Your task to perform on an android device: Open maps Image 0: 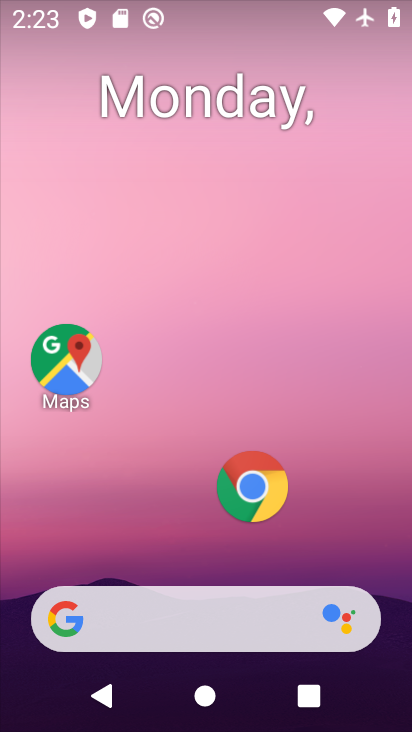
Step 0: drag from (152, 546) to (205, 1)
Your task to perform on an android device: Open maps Image 1: 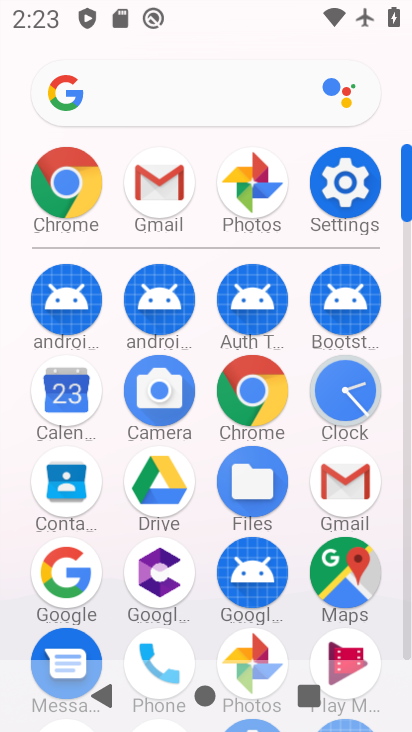
Step 1: click (345, 566)
Your task to perform on an android device: Open maps Image 2: 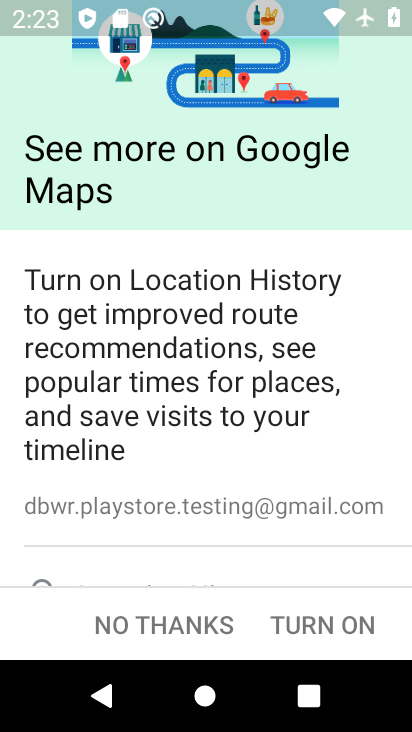
Step 2: click (212, 614)
Your task to perform on an android device: Open maps Image 3: 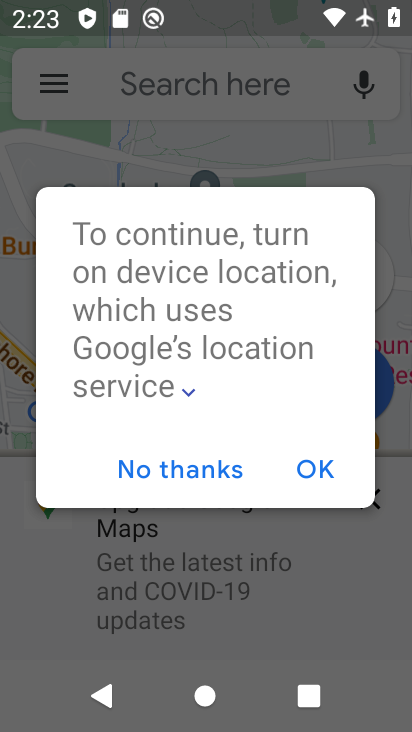
Step 3: click (304, 472)
Your task to perform on an android device: Open maps Image 4: 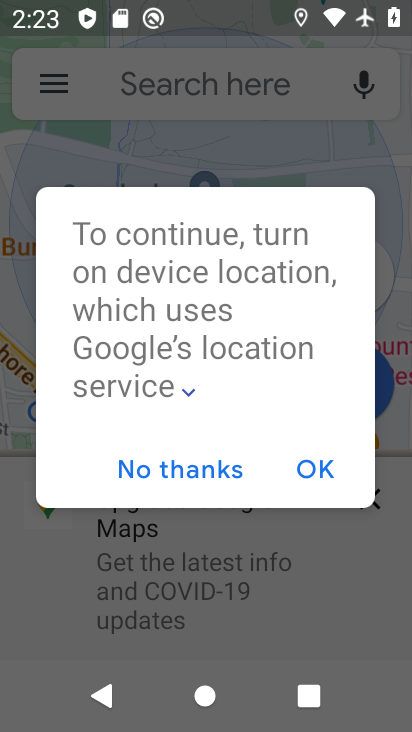
Step 4: click (315, 474)
Your task to perform on an android device: Open maps Image 5: 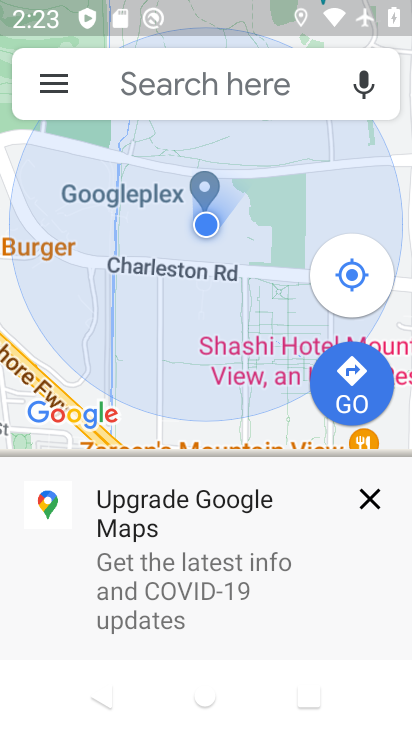
Step 5: task complete